Your task to perform on an android device: What's on my calendar today? Image 0: 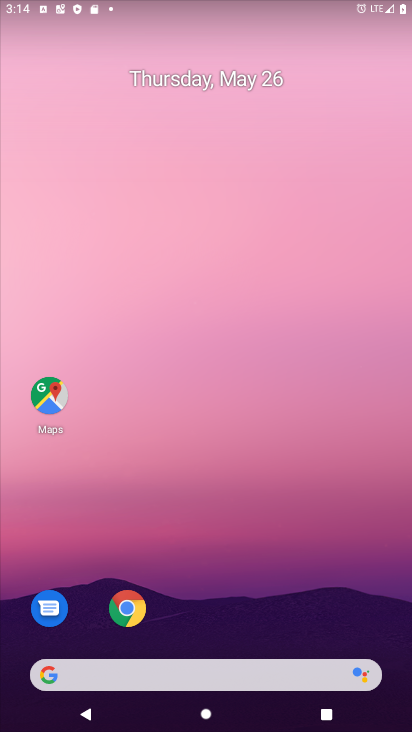
Step 0: drag from (381, 620) to (289, 146)
Your task to perform on an android device: What's on my calendar today? Image 1: 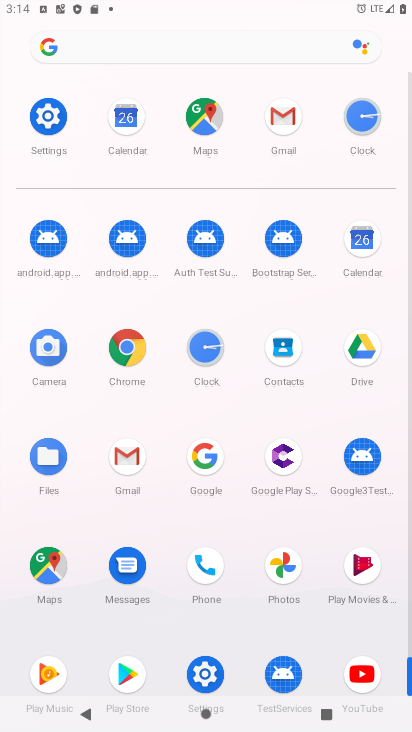
Step 1: click (362, 240)
Your task to perform on an android device: What's on my calendar today? Image 2: 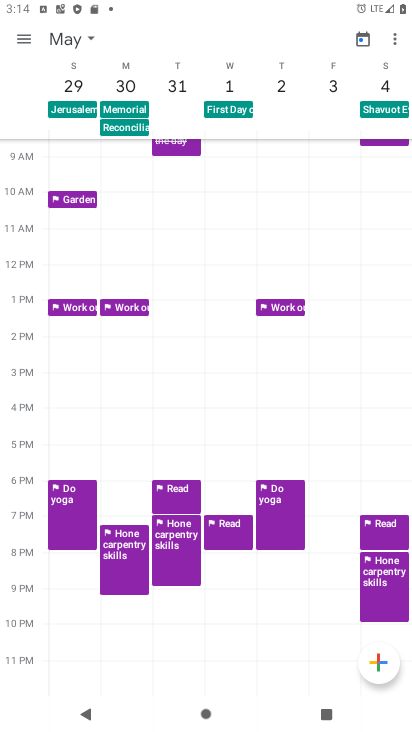
Step 2: click (20, 33)
Your task to perform on an android device: What's on my calendar today? Image 3: 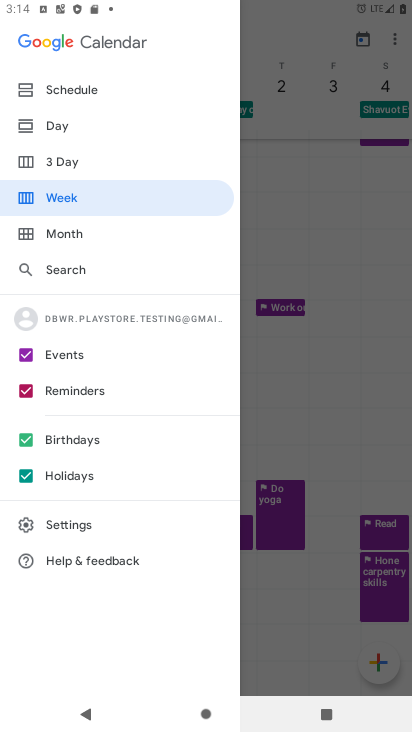
Step 3: click (50, 130)
Your task to perform on an android device: What's on my calendar today? Image 4: 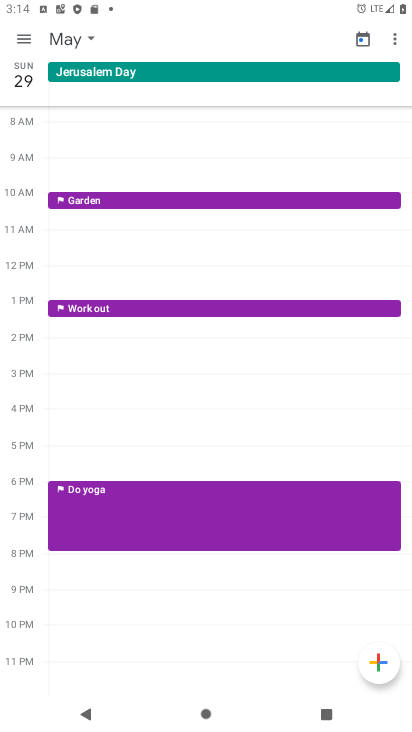
Step 4: click (86, 36)
Your task to perform on an android device: What's on my calendar today? Image 5: 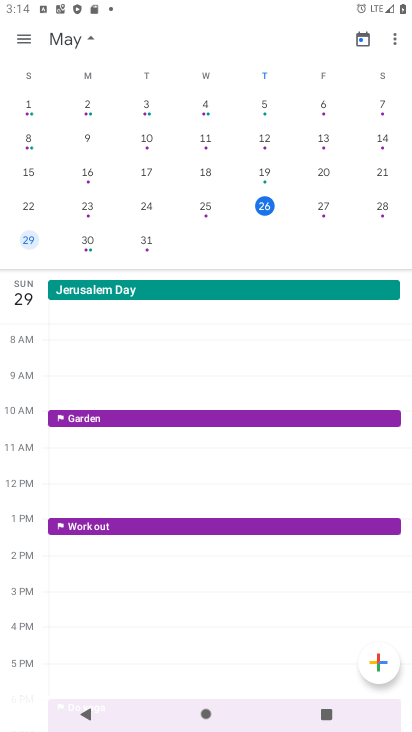
Step 5: click (253, 202)
Your task to perform on an android device: What's on my calendar today? Image 6: 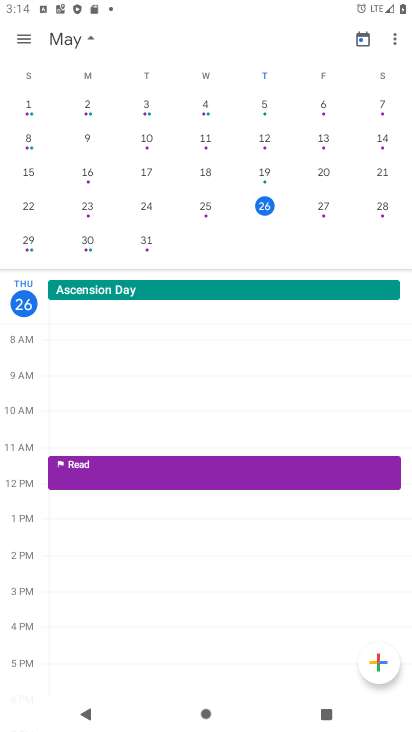
Step 6: task complete